Your task to perform on an android device: check the backup settings in the google photos Image 0: 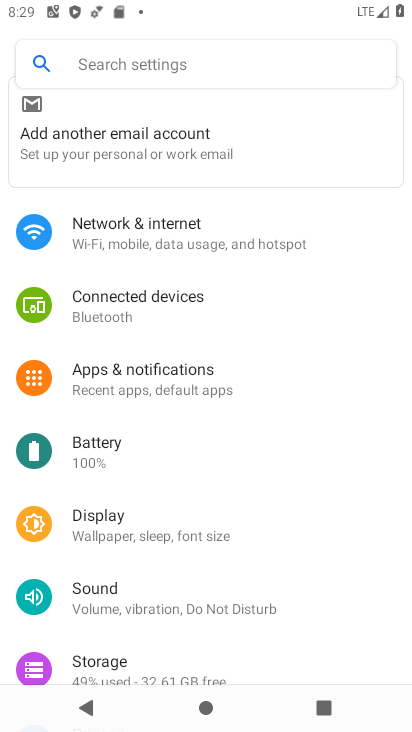
Step 0: press home button
Your task to perform on an android device: check the backup settings in the google photos Image 1: 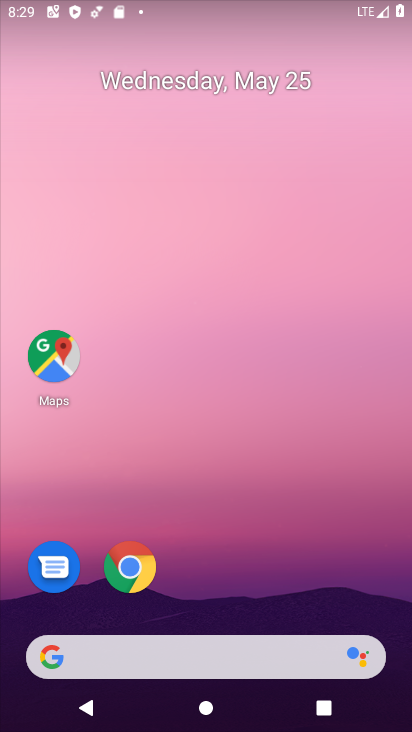
Step 1: drag from (277, 535) to (253, 74)
Your task to perform on an android device: check the backup settings in the google photos Image 2: 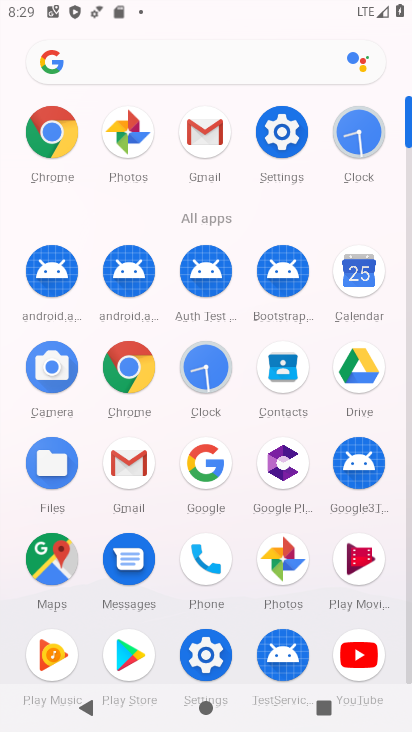
Step 2: click (276, 555)
Your task to perform on an android device: check the backup settings in the google photos Image 3: 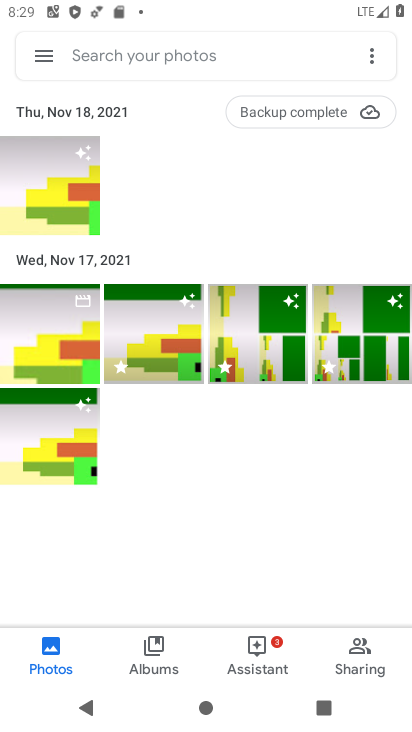
Step 3: click (46, 52)
Your task to perform on an android device: check the backup settings in the google photos Image 4: 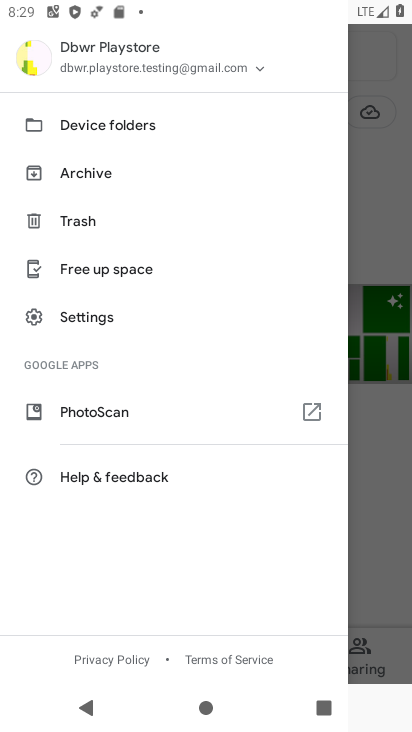
Step 4: click (101, 313)
Your task to perform on an android device: check the backup settings in the google photos Image 5: 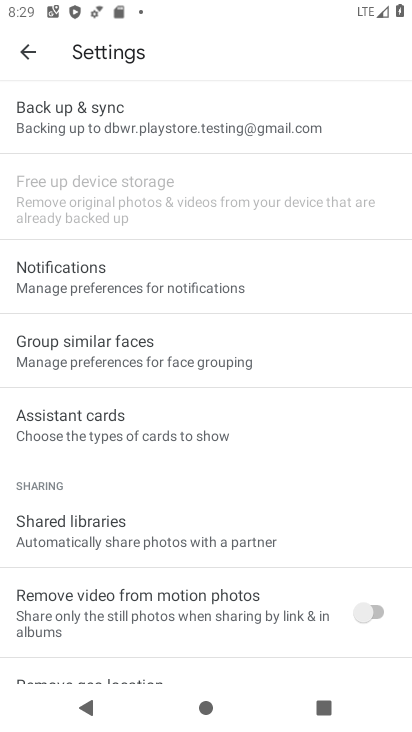
Step 5: click (188, 115)
Your task to perform on an android device: check the backup settings in the google photos Image 6: 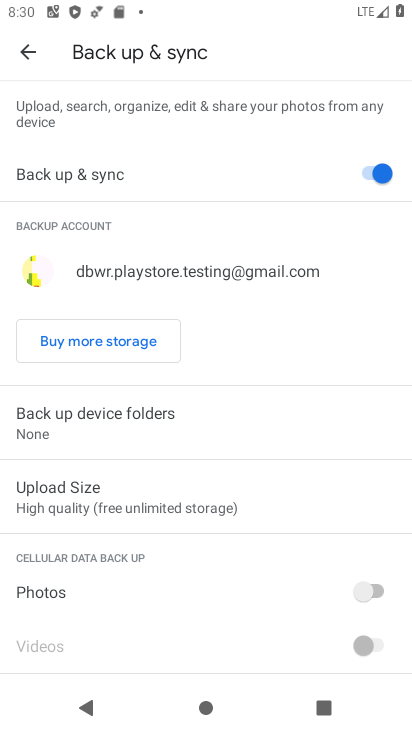
Step 6: task complete